Your task to perform on an android device: turn off priority inbox in the gmail app Image 0: 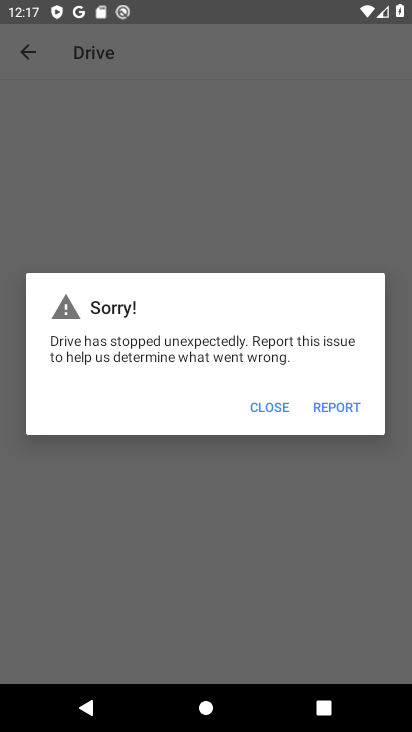
Step 0: press home button
Your task to perform on an android device: turn off priority inbox in the gmail app Image 1: 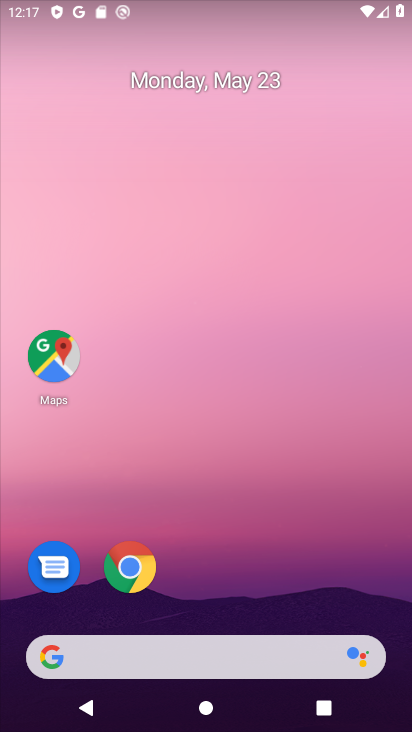
Step 1: drag from (204, 596) to (192, 282)
Your task to perform on an android device: turn off priority inbox in the gmail app Image 2: 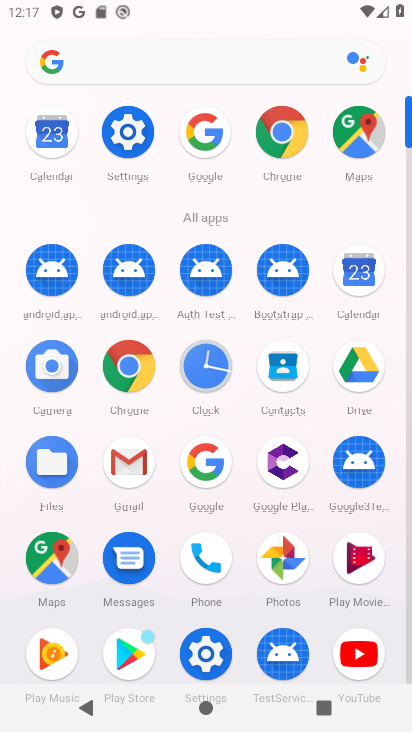
Step 2: click (136, 452)
Your task to perform on an android device: turn off priority inbox in the gmail app Image 3: 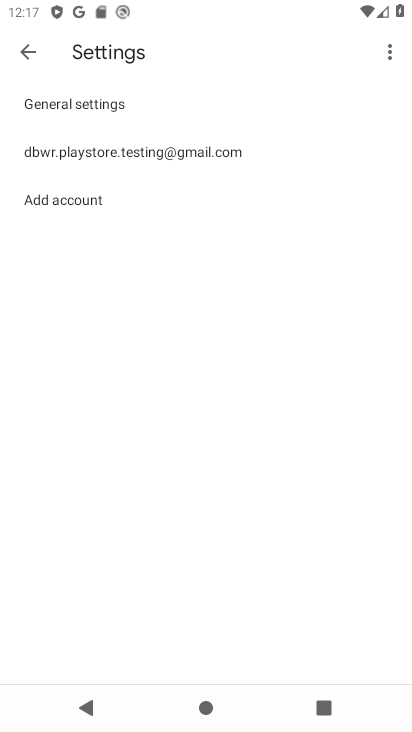
Step 3: click (26, 148)
Your task to perform on an android device: turn off priority inbox in the gmail app Image 4: 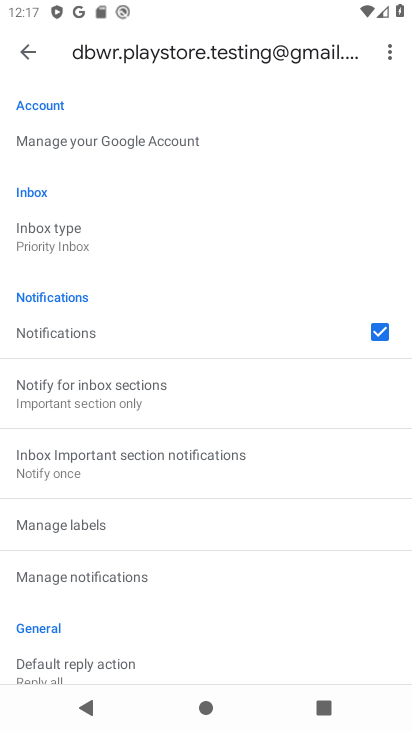
Step 4: click (48, 242)
Your task to perform on an android device: turn off priority inbox in the gmail app Image 5: 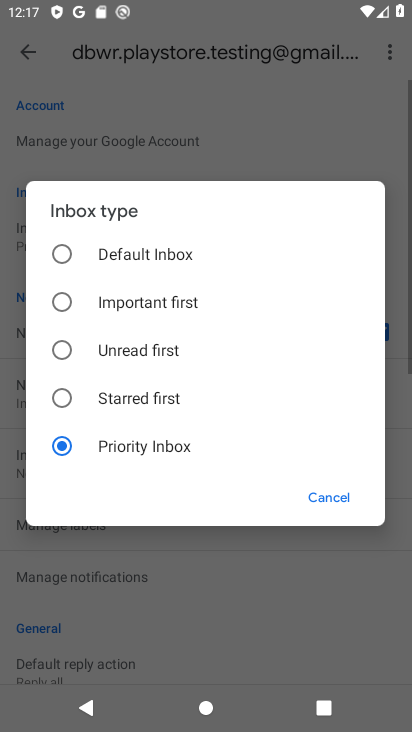
Step 5: click (82, 242)
Your task to perform on an android device: turn off priority inbox in the gmail app Image 6: 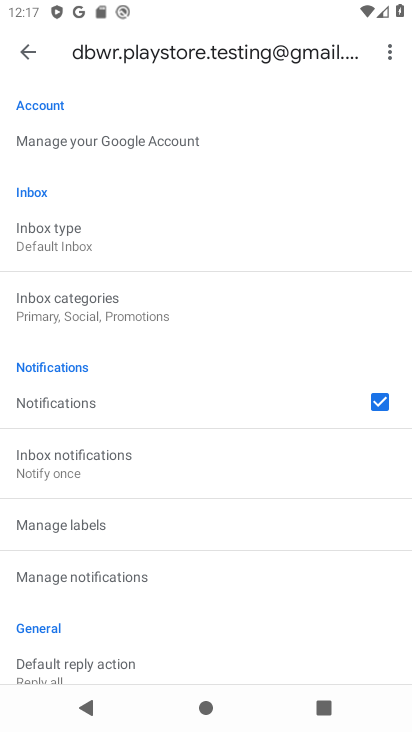
Step 6: task complete